Your task to perform on an android device: change the clock display to show seconds Image 0: 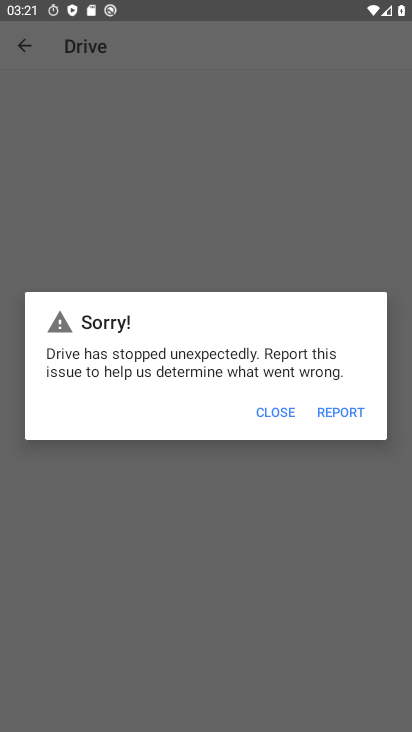
Step 0: press home button
Your task to perform on an android device: change the clock display to show seconds Image 1: 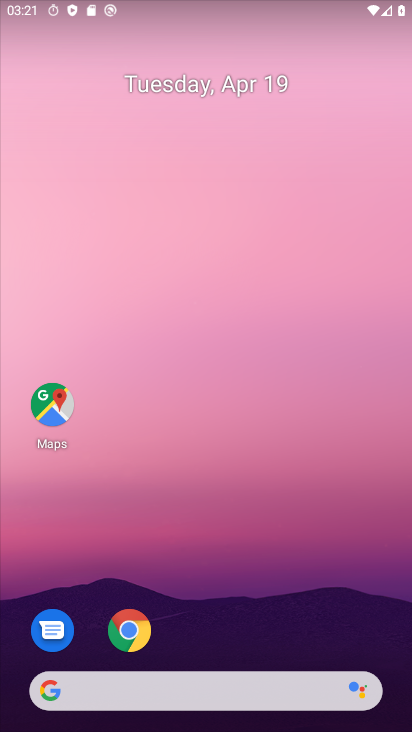
Step 1: drag from (260, 598) to (247, 221)
Your task to perform on an android device: change the clock display to show seconds Image 2: 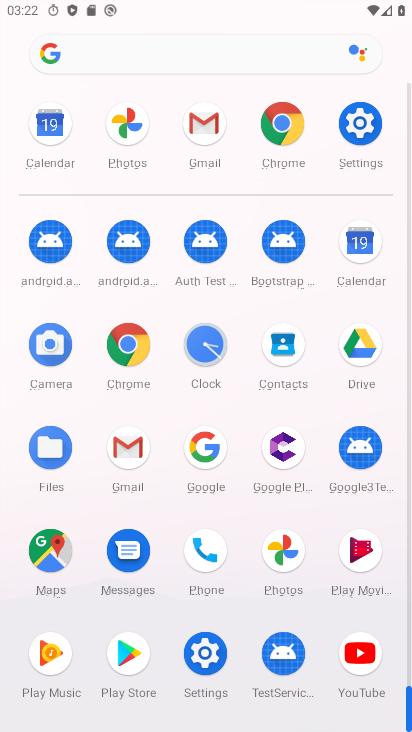
Step 2: click (200, 353)
Your task to perform on an android device: change the clock display to show seconds Image 3: 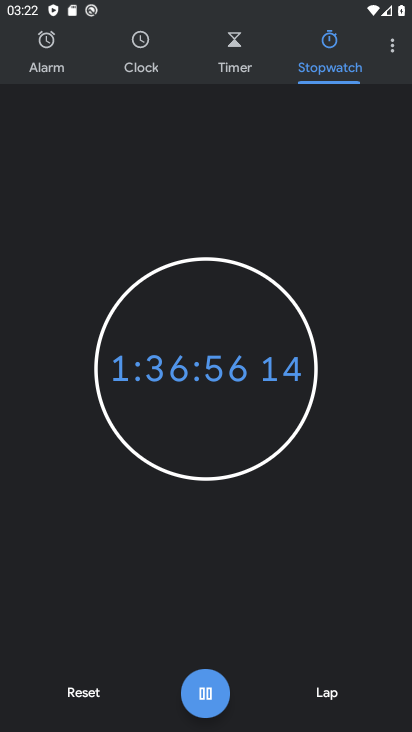
Step 3: click (393, 47)
Your task to perform on an android device: change the clock display to show seconds Image 4: 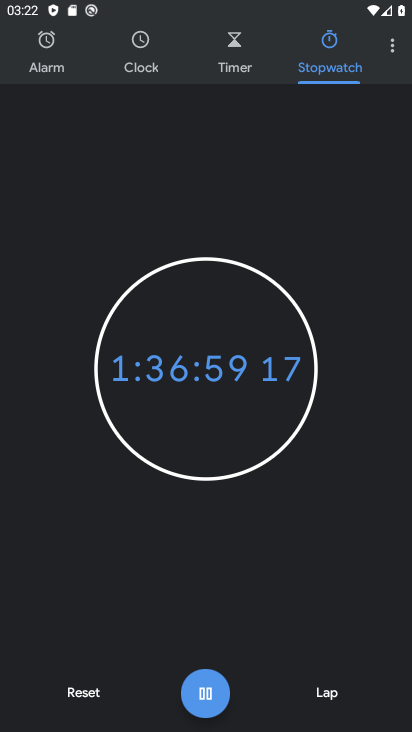
Step 4: click (388, 44)
Your task to perform on an android device: change the clock display to show seconds Image 5: 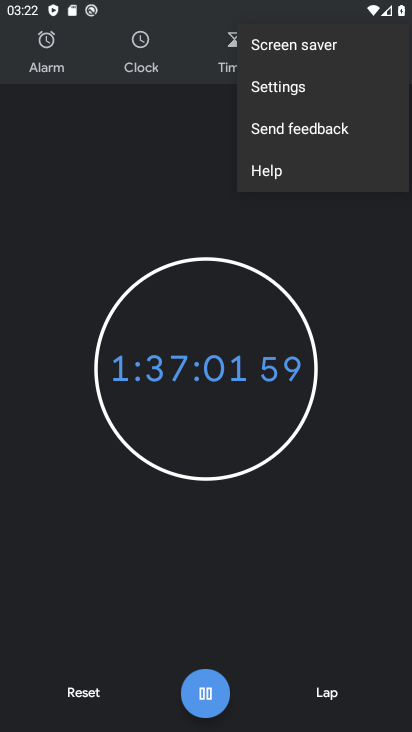
Step 5: click (258, 92)
Your task to perform on an android device: change the clock display to show seconds Image 6: 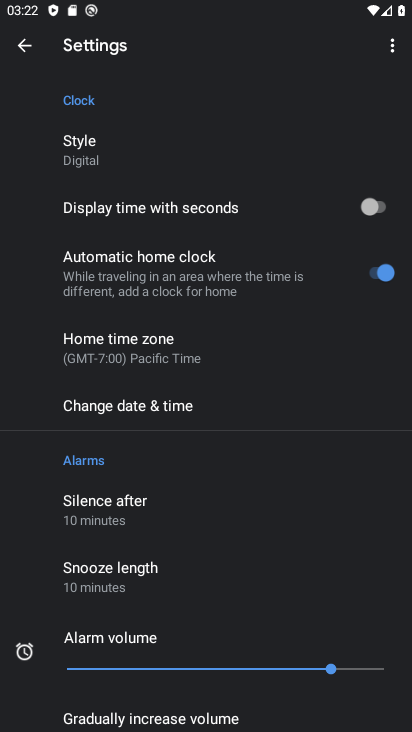
Step 6: click (379, 209)
Your task to perform on an android device: change the clock display to show seconds Image 7: 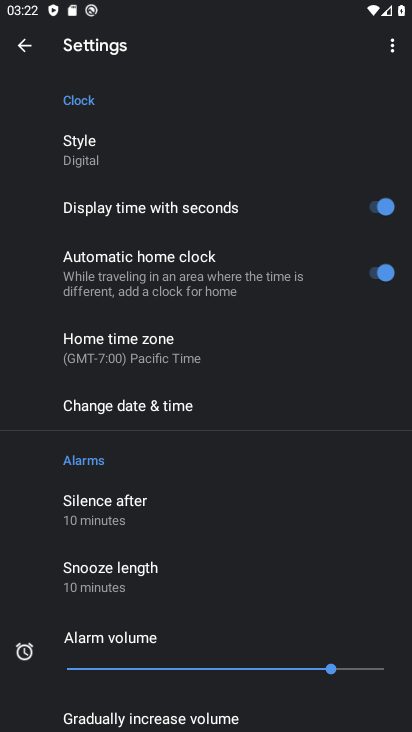
Step 7: task complete